Your task to perform on an android device: change the upload size in google photos Image 0: 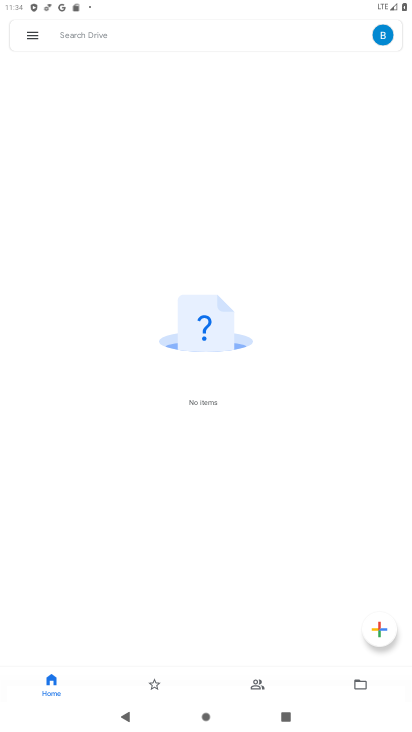
Step 0: press home button
Your task to perform on an android device: change the upload size in google photos Image 1: 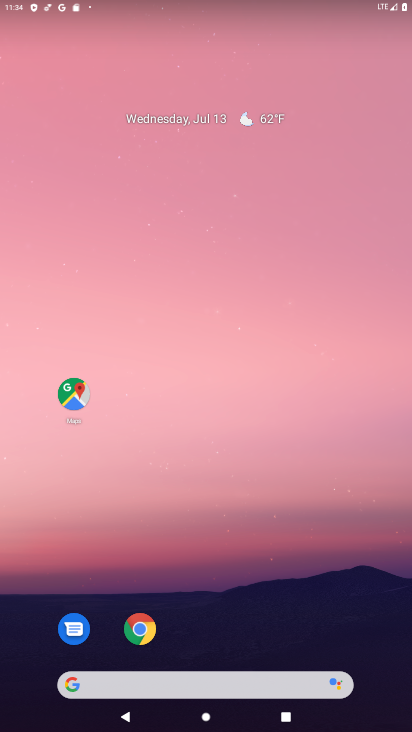
Step 1: drag from (303, 333) to (402, 7)
Your task to perform on an android device: change the upload size in google photos Image 2: 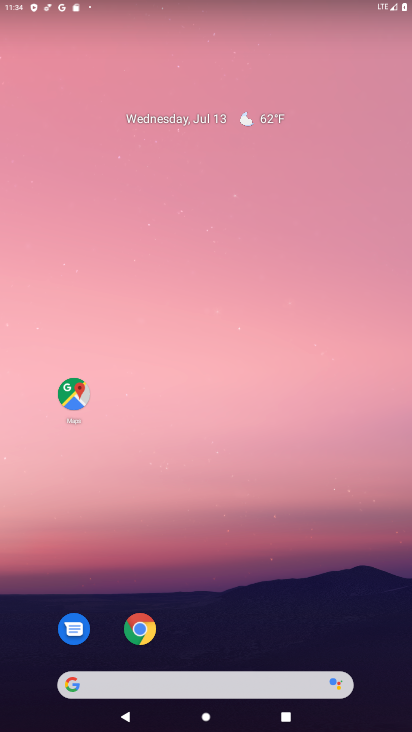
Step 2: drag from (179, 653) to (212, 75)
Your task to perform on an android device: change the upload size in google photos Image 3: 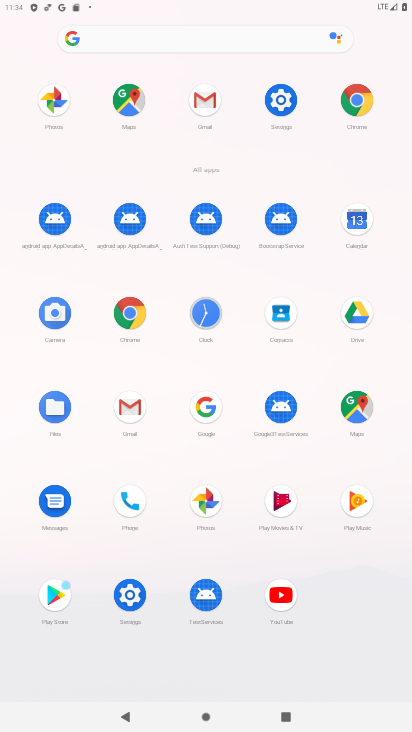
Step 3: click (52, 98)
Your task to perform on an android device: change the upload size in google photos Image 4: 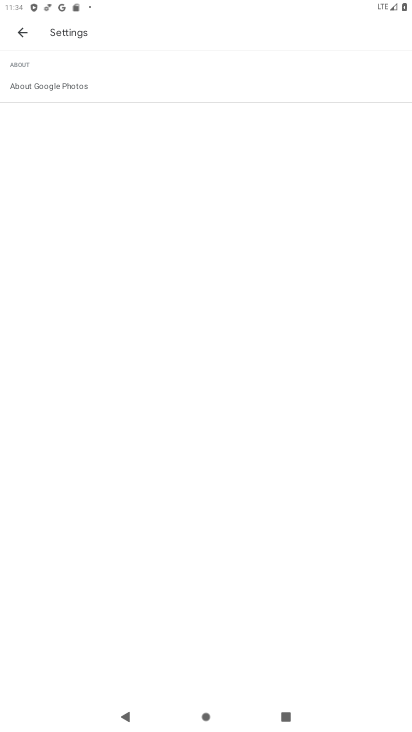
Step 4: click (25, 36)
Your task to perform on an android device: change the upload size in google photos Image 5: 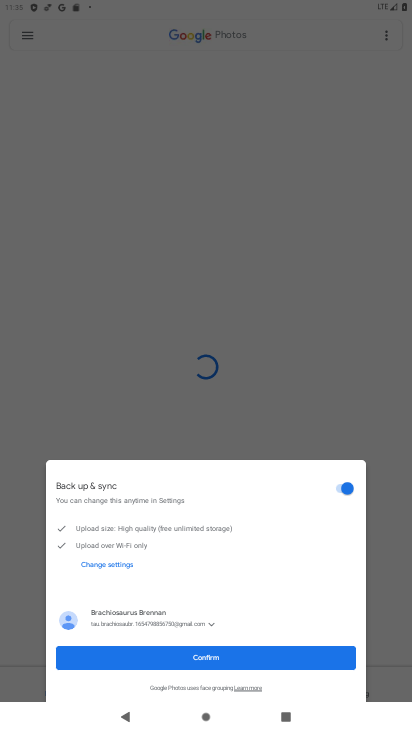
Step 5: click (119, 561)
Your task to perform on an android device: change the upload size in google photos Image 6: 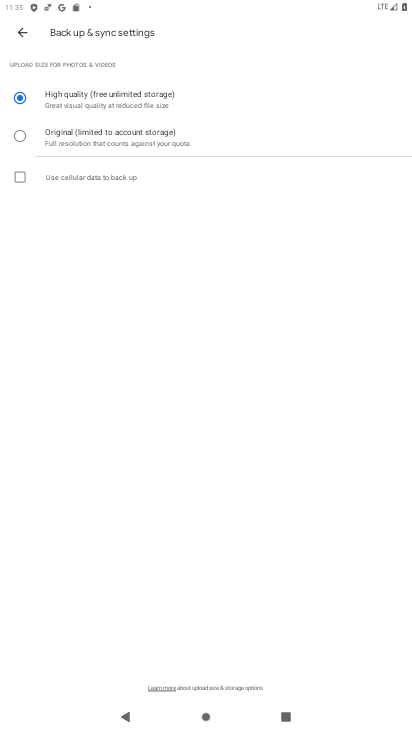
Step 6: click (119, 133)
Your task to perform on an android device: change the upload size in google photos Image 7: 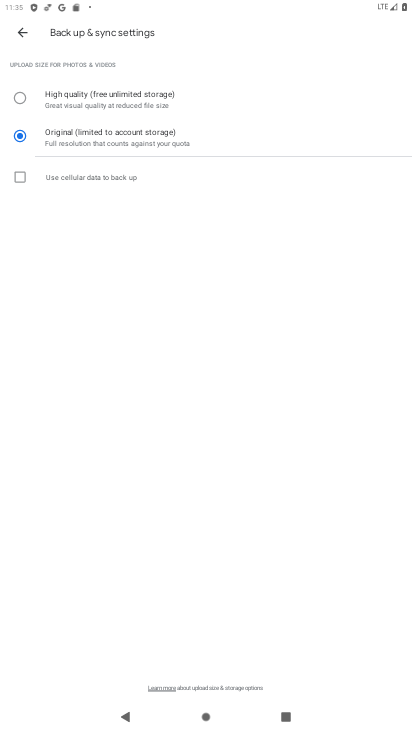
Step 7: task complete